Your task to perform on an android device: turn off smart reply in the gmail app Image 0: 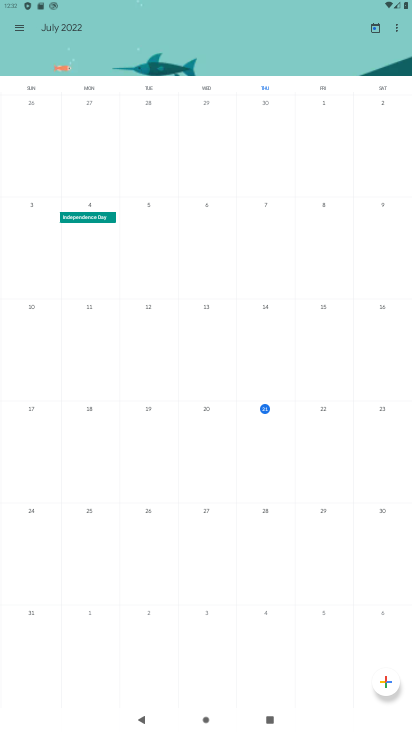
Step 0: press home button
Your task to perform on an android device: turn off smart reply in the gmail app Image 1: 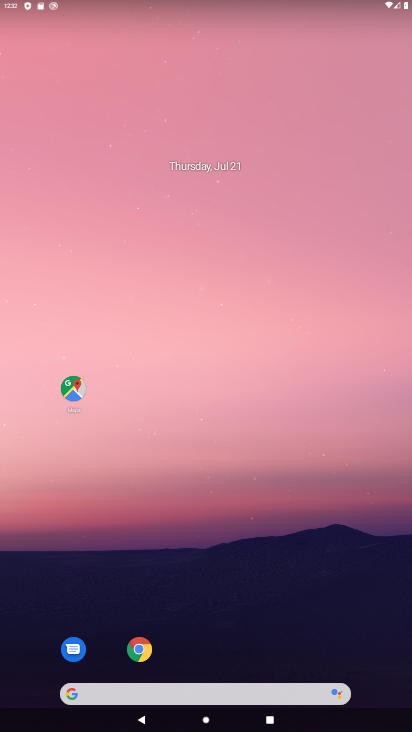
Step 1: drag from (205, 677) to (143, 231)
Your task to perform on an android device: turn off smart reply in the gmail app Image 2: 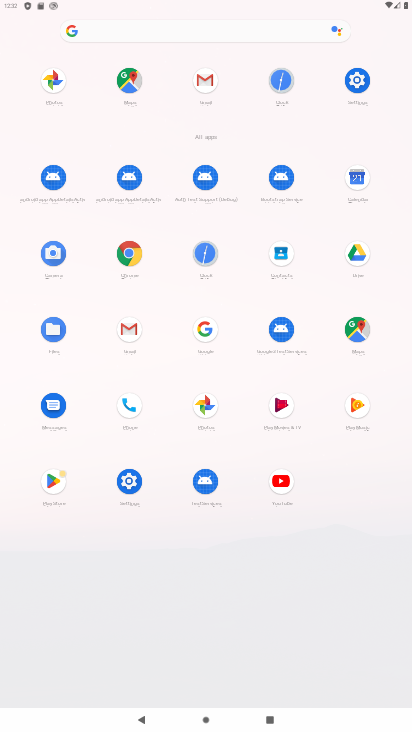
Step 2: click (132, 336)
Your task to perform on an android device: turn off smart reply in the gmail app Image 3: 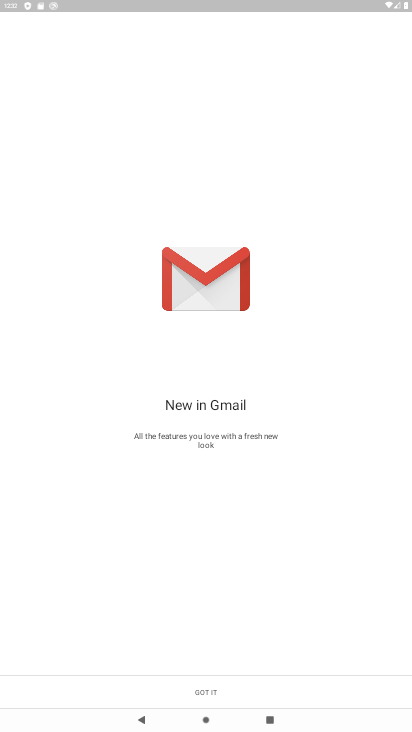
Step 3: click (209, 695)
Your task to perform on an android device: turn off smart reply in the gmail app Image 4: 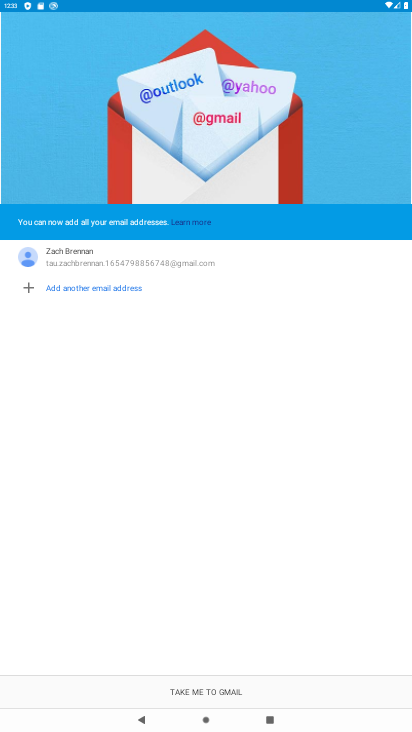
Step 4: click (207, 691)
Your task to perform on an android device: turn off smart reply in the gmail app Image 5: 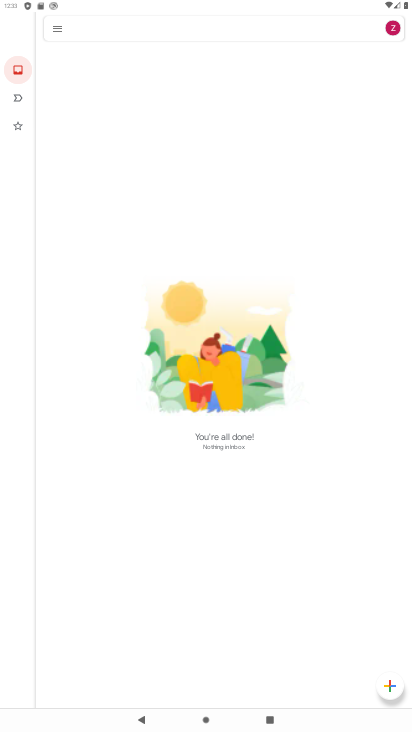
Step 5: click (57, 34)
Your task to perform on an android device: turn off smart reply in the gmail app Image 6: 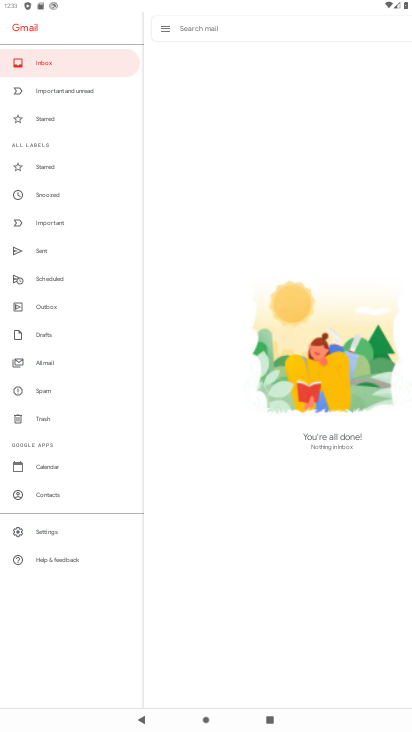
Step 6: click (55, 528)
Your task to perform on an android device: turn off smart reply in the gmail app Image 7: 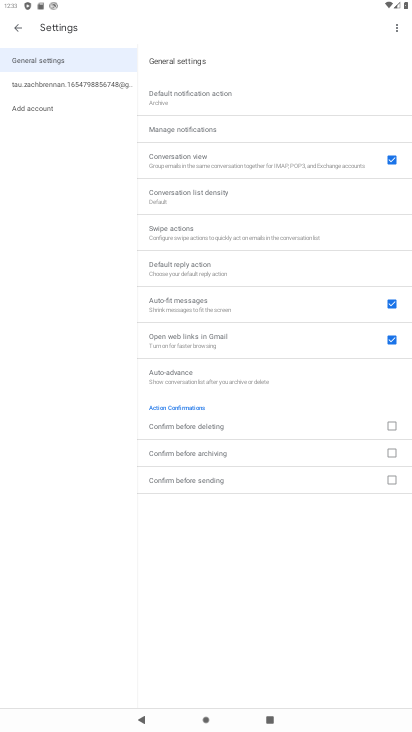
Step 7: click (101, 88)
Your task to perform on an android device: turn off smart reply in the gmail app Image 8: 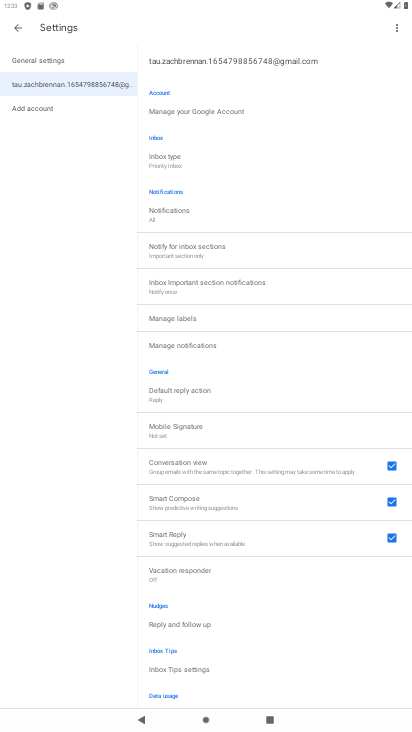
Step 8: click (393, 537)
Your task to perform on an android device: turn off smart reply in the gmail app Image 9: 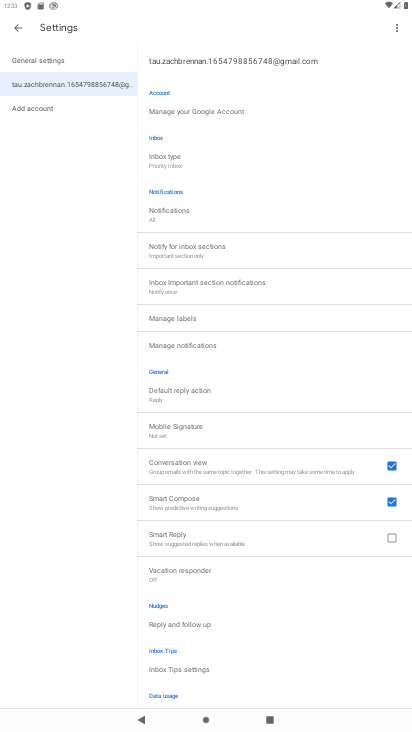
Step 9: task complete